Your task to perform on an android device: allow cookies in the chrome app Image 0: 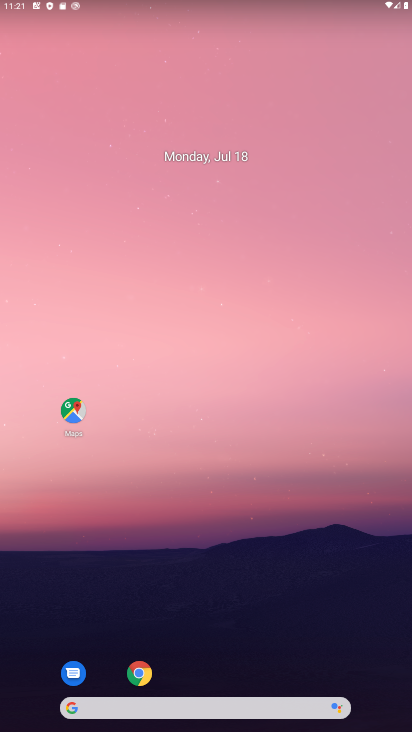
Step 0: press home button
Your task to perform on an android device: allow cookies in the chrome app Image 1: 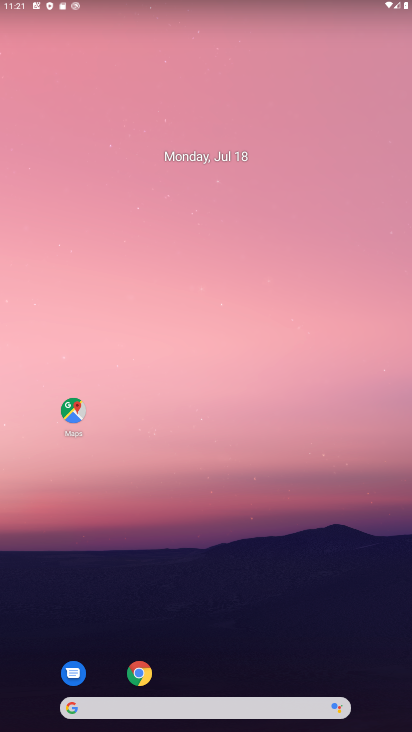
Step 1: click (138, 669)
Your task to perform on an android device: allow cookies in the chrome app Image 2: 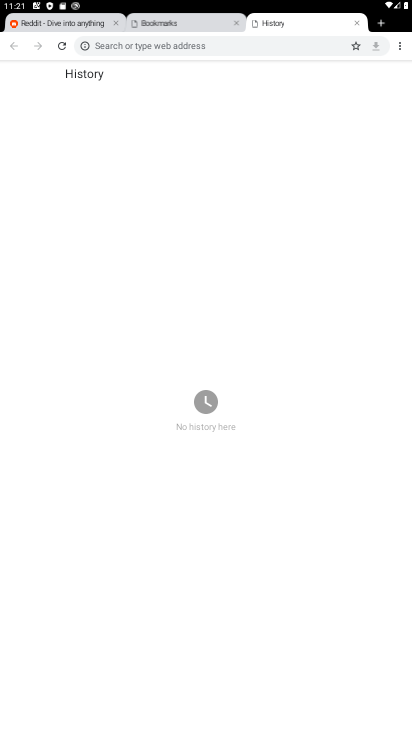
Step 2: click (399, 41)
Your task to perform on an android device: allow cookies in the chrome app Image 3: 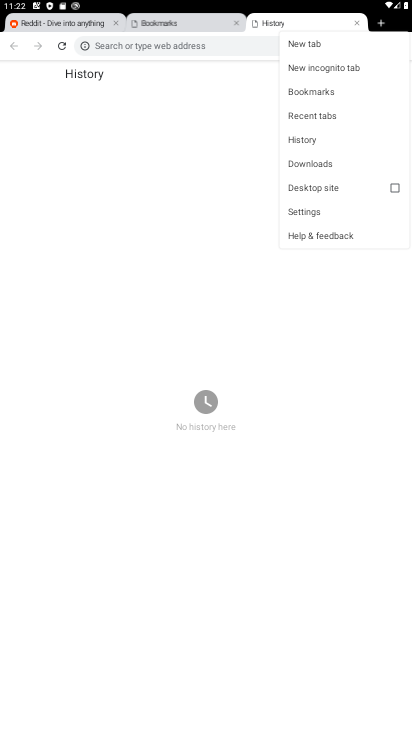
Step 3: click (316, 210)
Your task to perform on an android device: allow cookies in the chrome app Image 4: 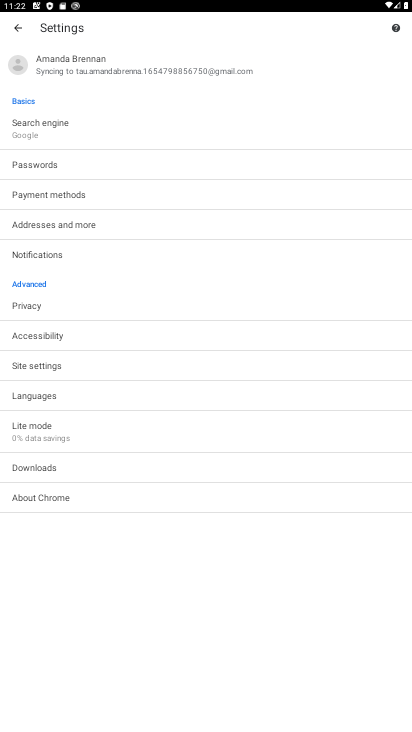
Step 4: click (64, 365)
Your task to perform on an android device: allow cookies in the chrome app Image 5: 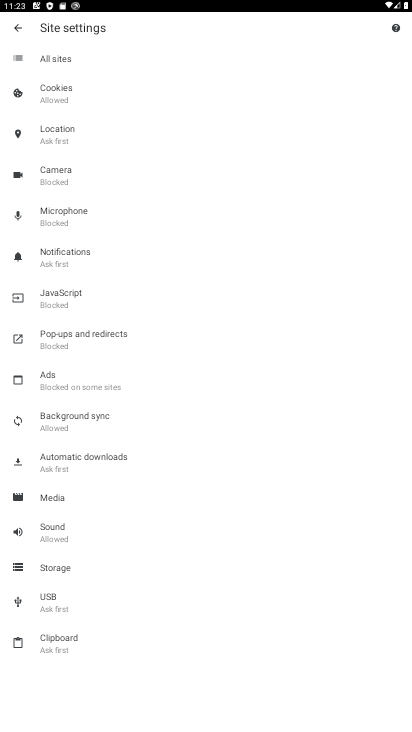
Step 5: click (88, 89)
Your task to perform on an android device: allow cookies in the chrome app Image 6: 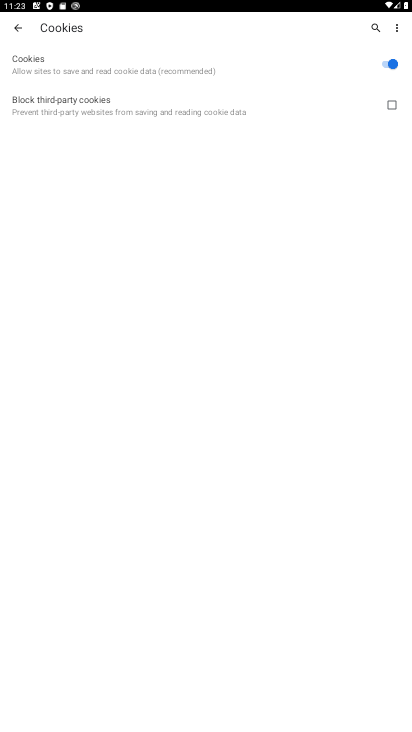
Step 6: task complete